Your task to perform on an android device: Open my contact list Image 0: 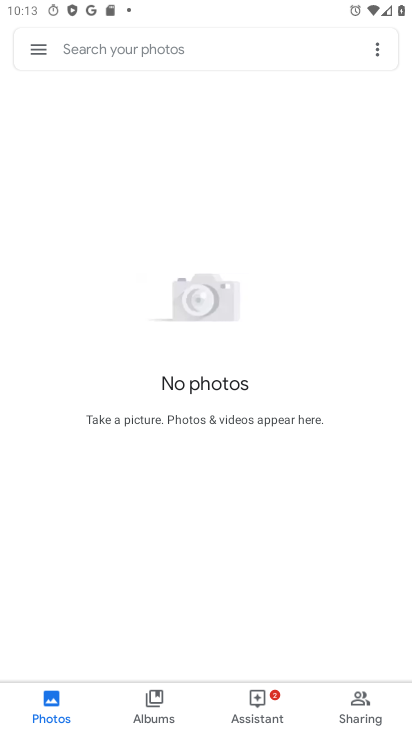
Step 0: drag from (17, 707) to (288, 88)
Your task to perform on an android device: Open my contact list Image 1: 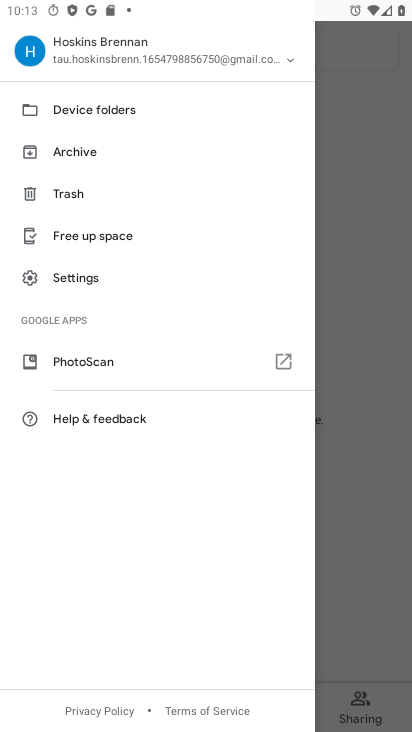
Step 1: press home button
Your task to perform on an android device: Open my contact list Image 2: 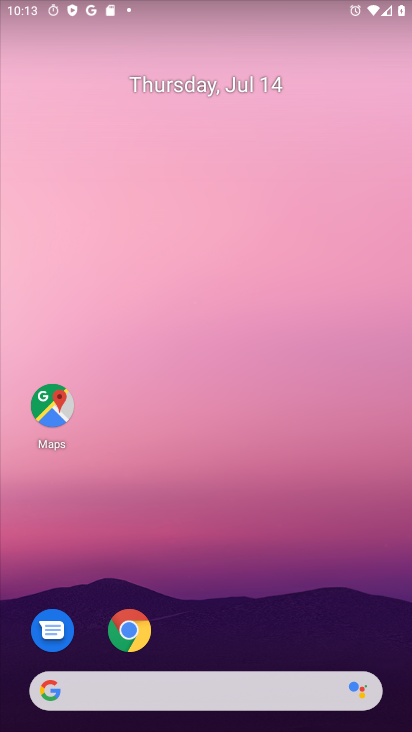
Step 2: drag from (7, 691) to (321, 62)
Your task to perform on an android device: Open my contact list Image 3: 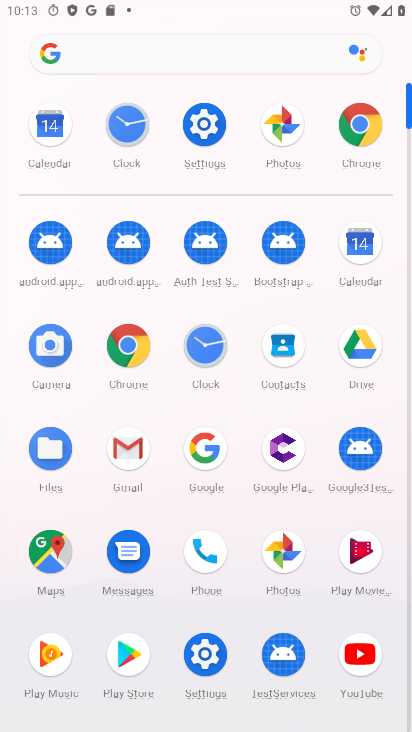
Step 3: click (207, 559)
Your task to perform on an android device: Open my contact list Image 4: 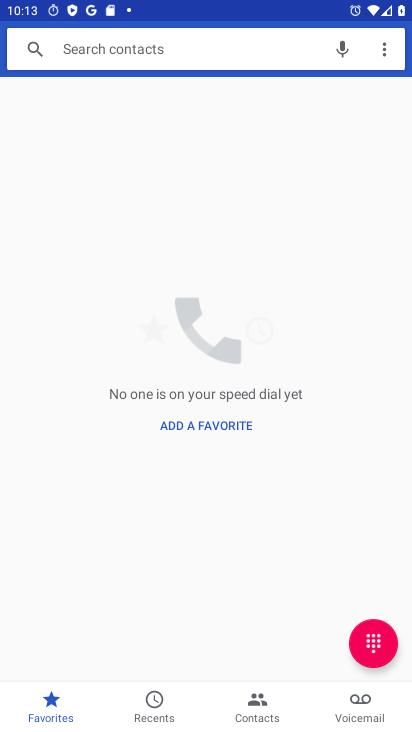
Step 4: click (252, 712)
Your task to perform on an android device: Open my contact list Image 5: 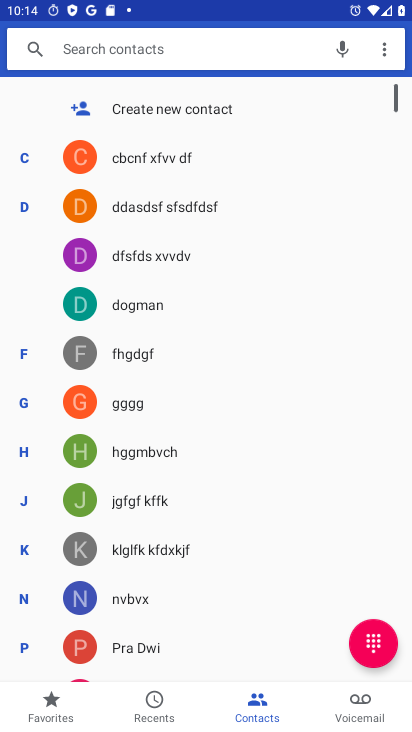
Step 5: task complete